Your task to perform on an android device: open app "Booking.com: Hotels and more" (install if not already installed), go to login, and select forgot password Image 0: 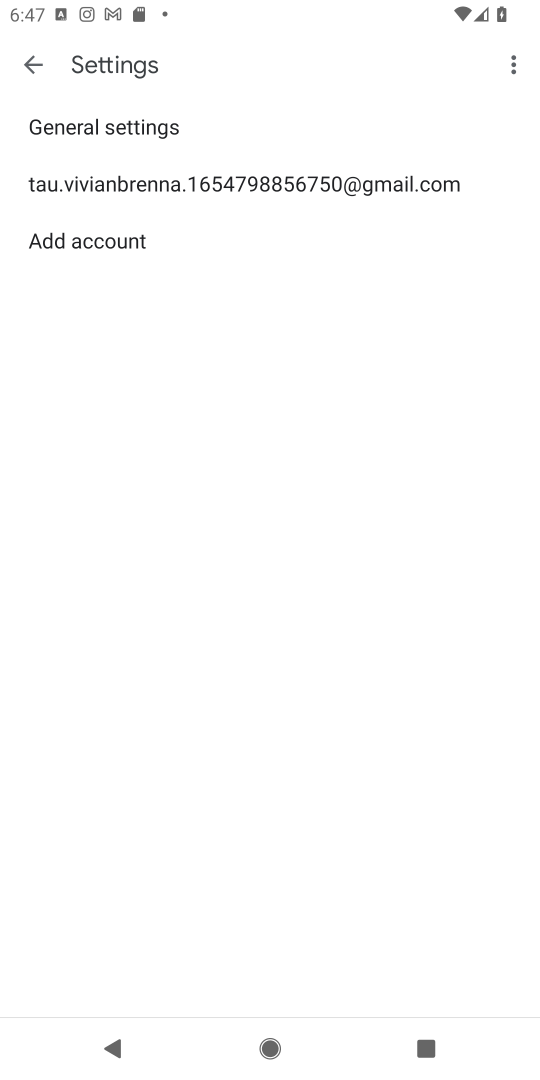
Step 0: press home button
Your task to perform on an android device: open app "Booking.com: Hotels and more" (install if not already installed), go to login, and select forgot password Image 1: 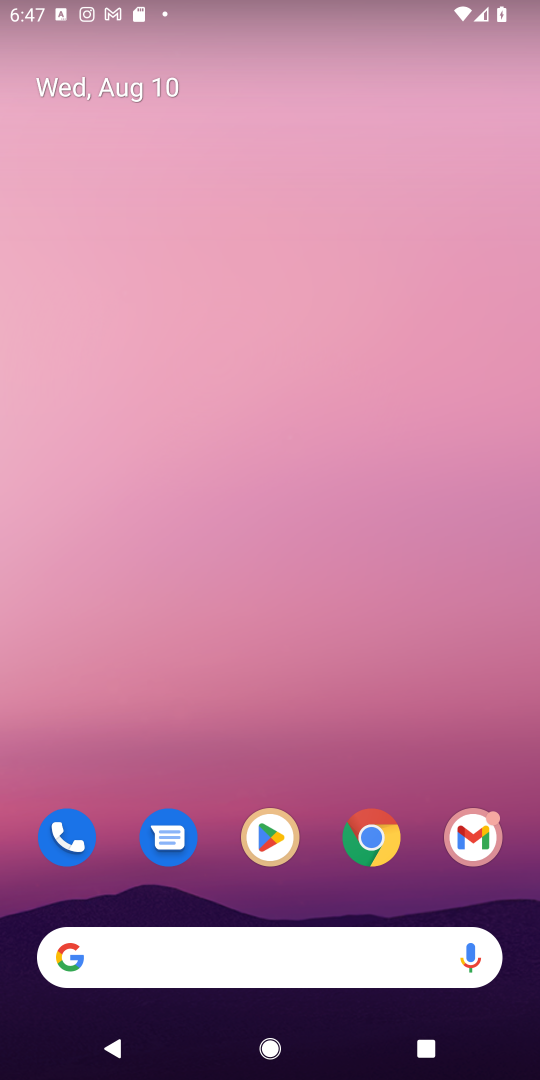
Step 1: click (276, 820)
Your task to perform on an android device: open app "Booking.com: Hotels and more" (install if not already installed), go to login, and select forgot password Image 2: 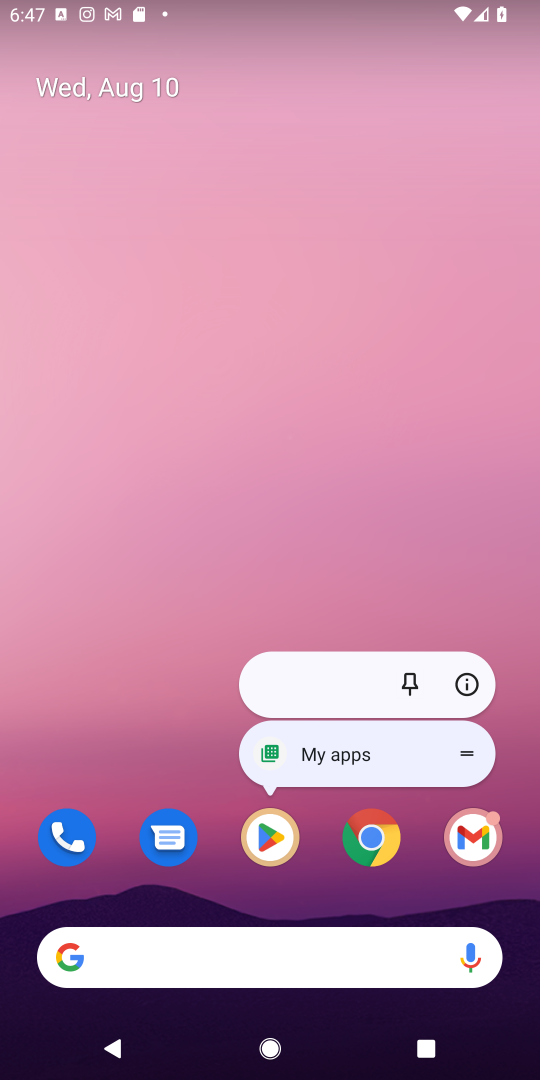
Step 2: click (272, 826)
Your task to perform on an android device: open app "Booking.com: Hotels and more" (install if not already installed), go to login, and select forgot password Image 3: 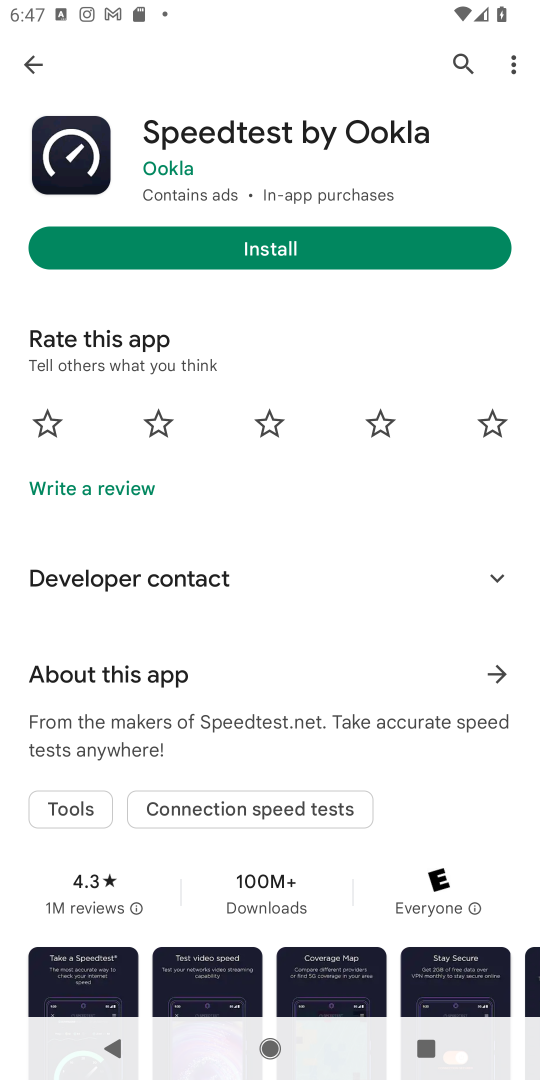
Step 3: click (464, 55)
Your task to perform on an android device: open app "Booking.com: Hotels and more" (install if not already installed), go to login, and select forgot password Image 4: 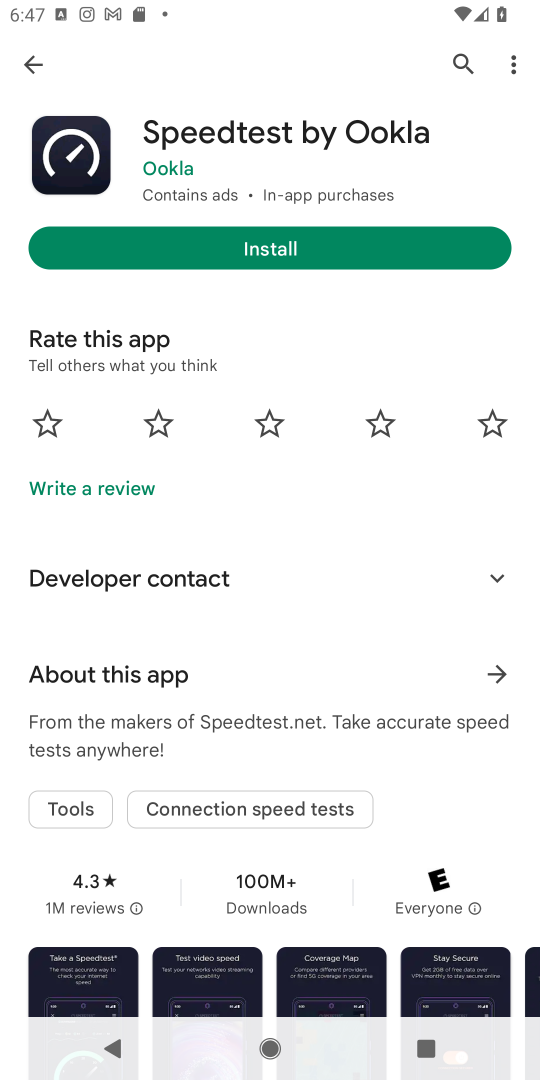
Step 4: click (457, 63)
Your task to perform on an android device: open app "Booking.com: Hotels and more" (install if not already installed), go to login, and select forgot password Image 5: 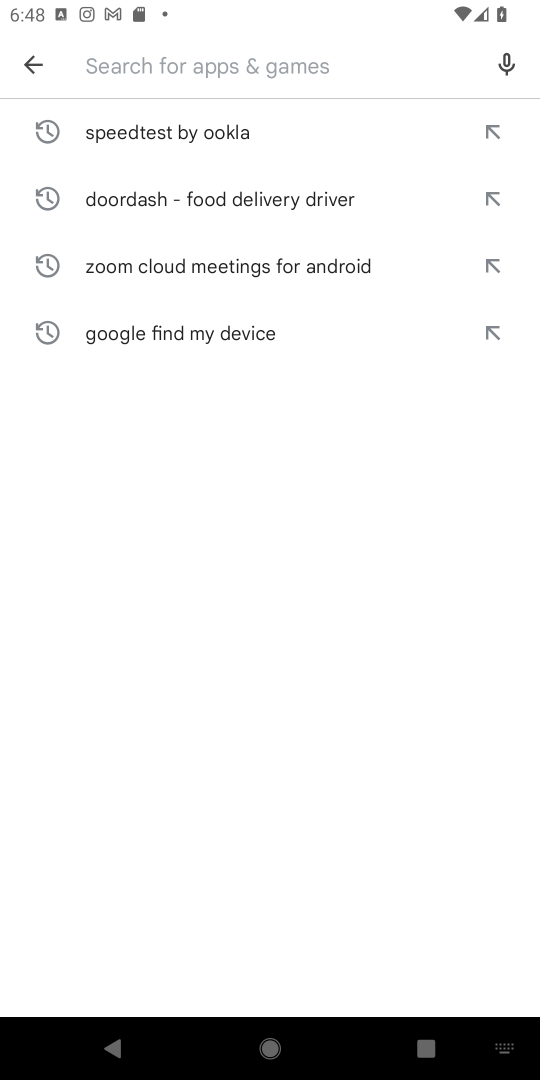
Step 5: type "Booking.com: Hotels and more"
Your task to perform on an android device: open app "Booking.com: Hotels and more" (install if not already installed), go to login, and select forgot password Image 6: 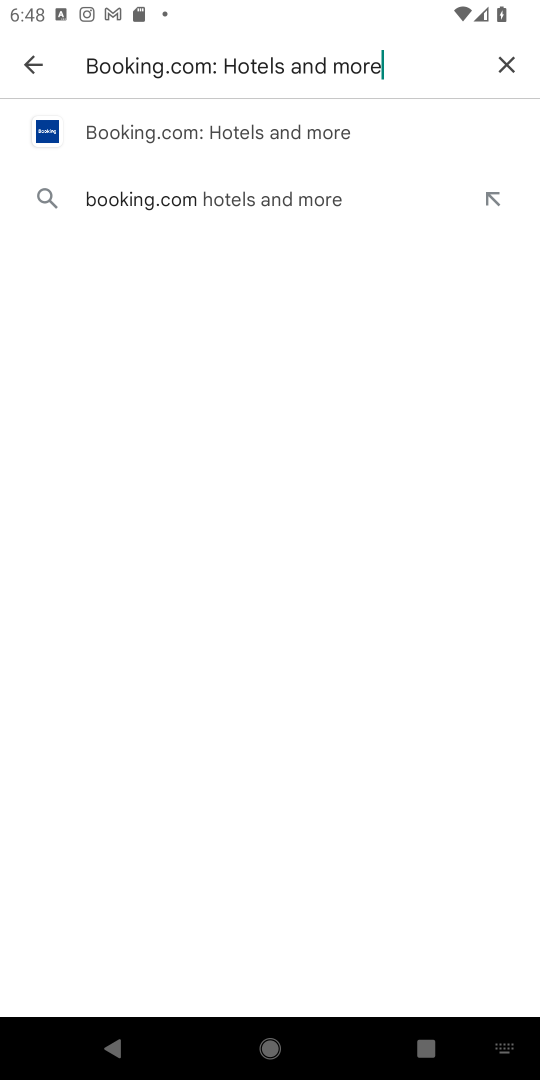
Step 6: click (192, 132)
Your task to perform on an android device: open app "Booking.com: Hotels and more" (install if not already installed), go to login, and select forgot password Image 7: 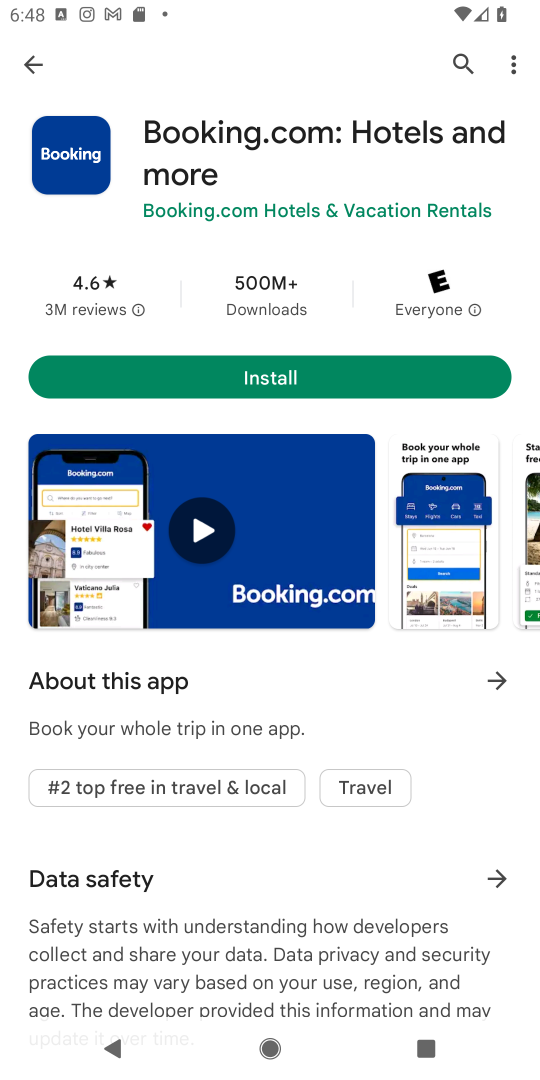
Step 7: click (283, 374)
Your task to perform on an android device: open app "Booking.com: Hotels and more" (install if not already installed), go to login, and select forgot password Image 8: 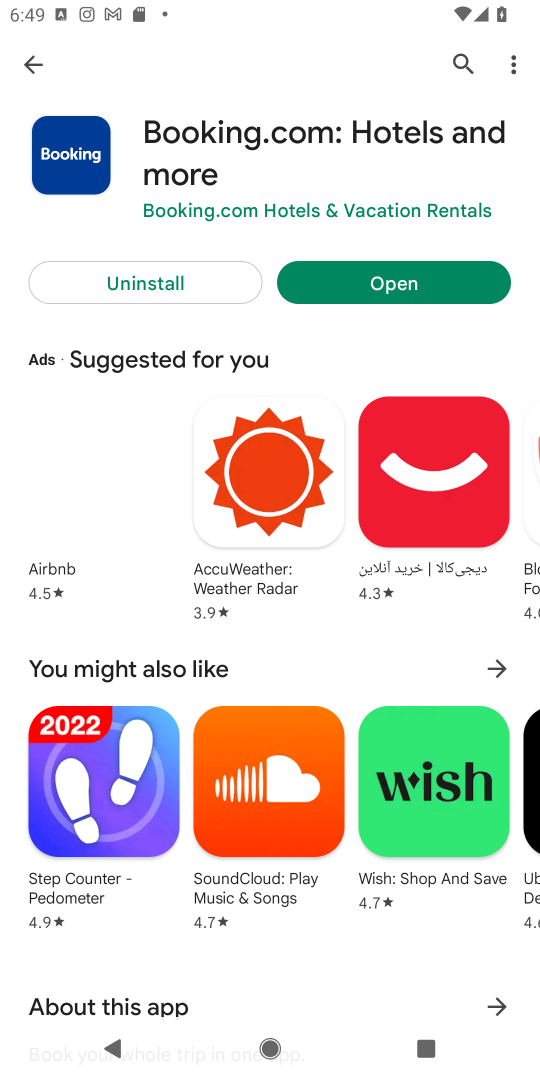
Step 8: click (391, 271)
Your task to perform on an android device: open app "Booking.com: Hotels and more" (install if not already installed), go to login, and select forgot password Image 9: 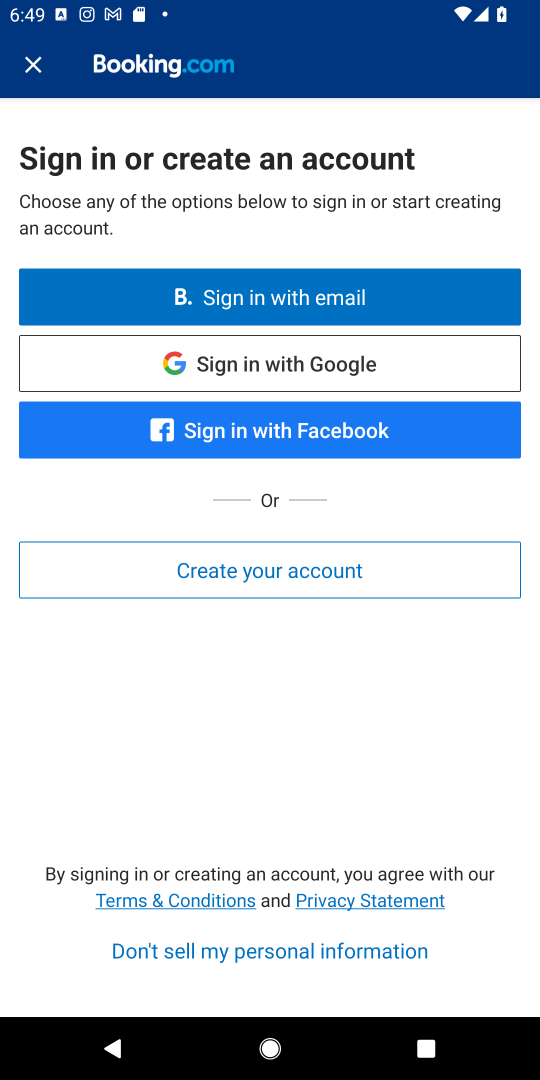
Step 9: click (298, 298)
Your task to perform on an android device: open app "Booking.com: Hotels and more" (install if not already installed), go to login, and select forgot password Image 10: 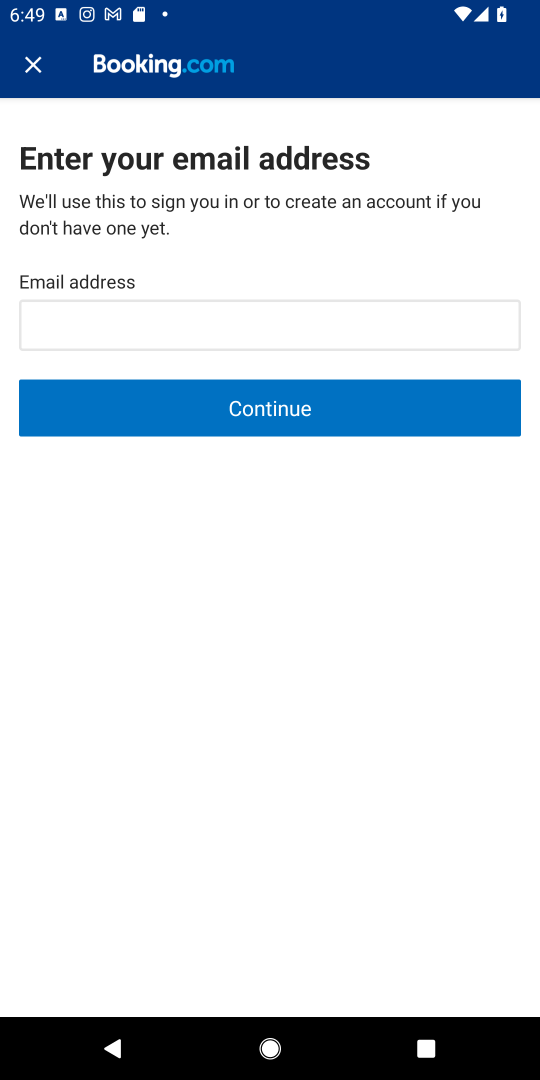
Step 10: task complete